Your task to perform on an android device: uninstall "Spotify: Music and Podcasts" Image 0: 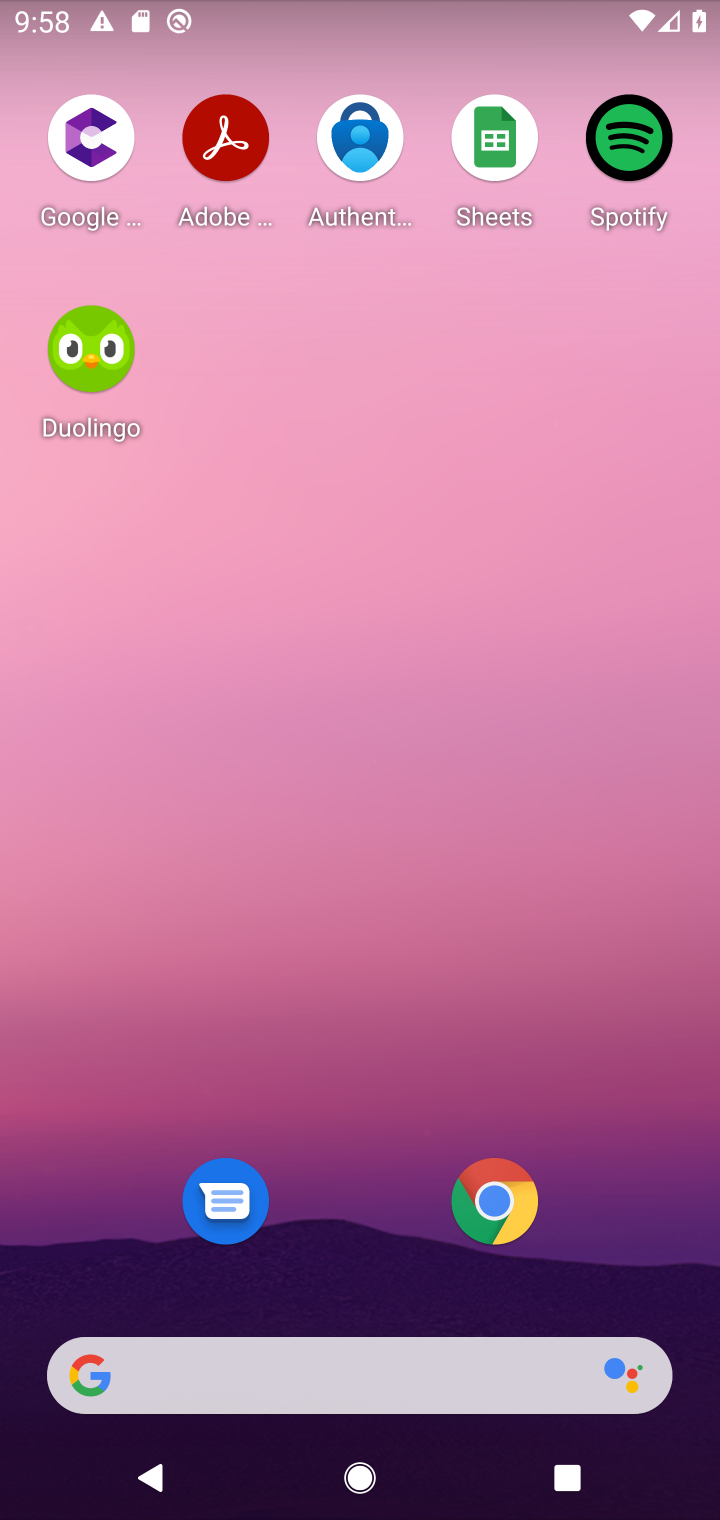
Step 0: drag from (364, 1226) to (312, 6)
Your task to perform on an android device: uninstall "Spotify: Music and Podcasts" Image 1: 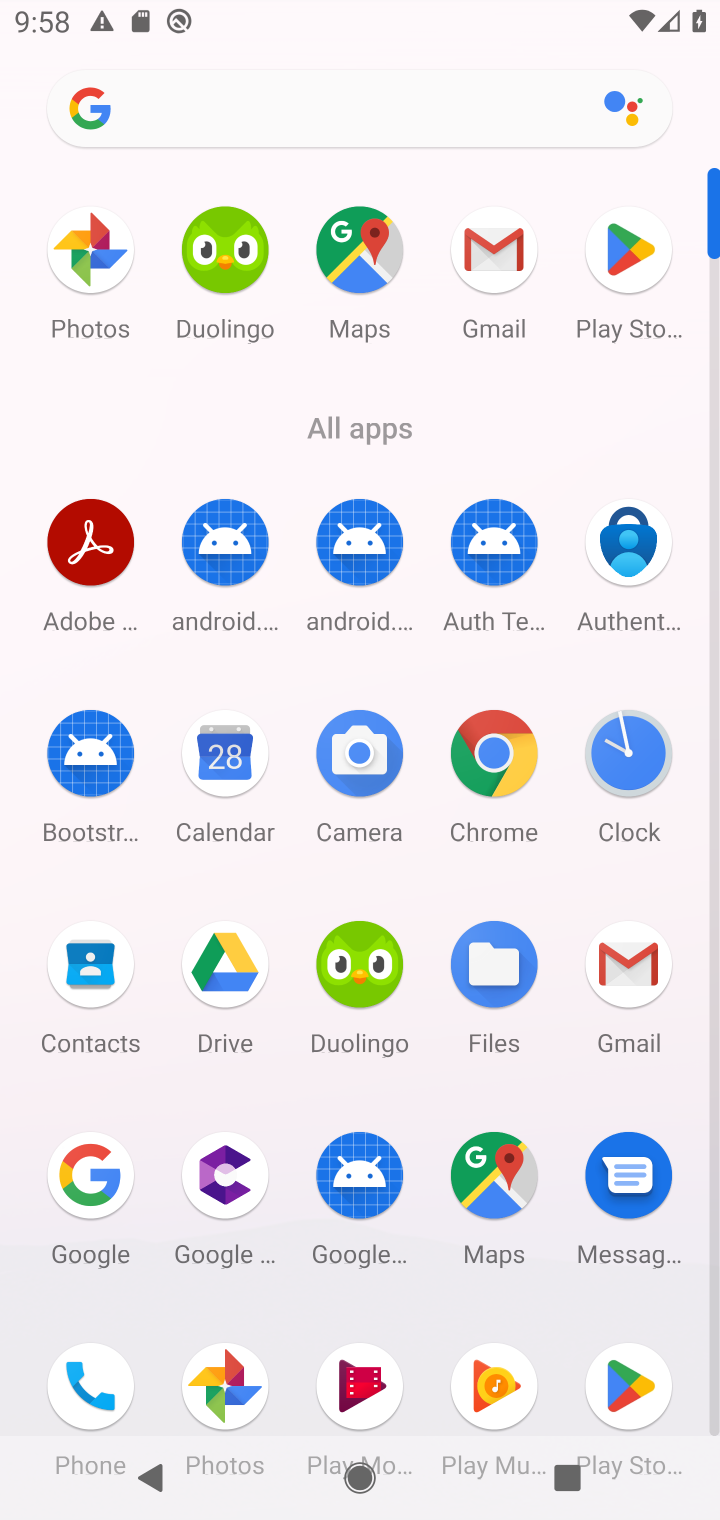
Step 1: click (621, 299)
Your task to perform on an android device: uninstall "Spotify: Music and Podcasts" Image 2: 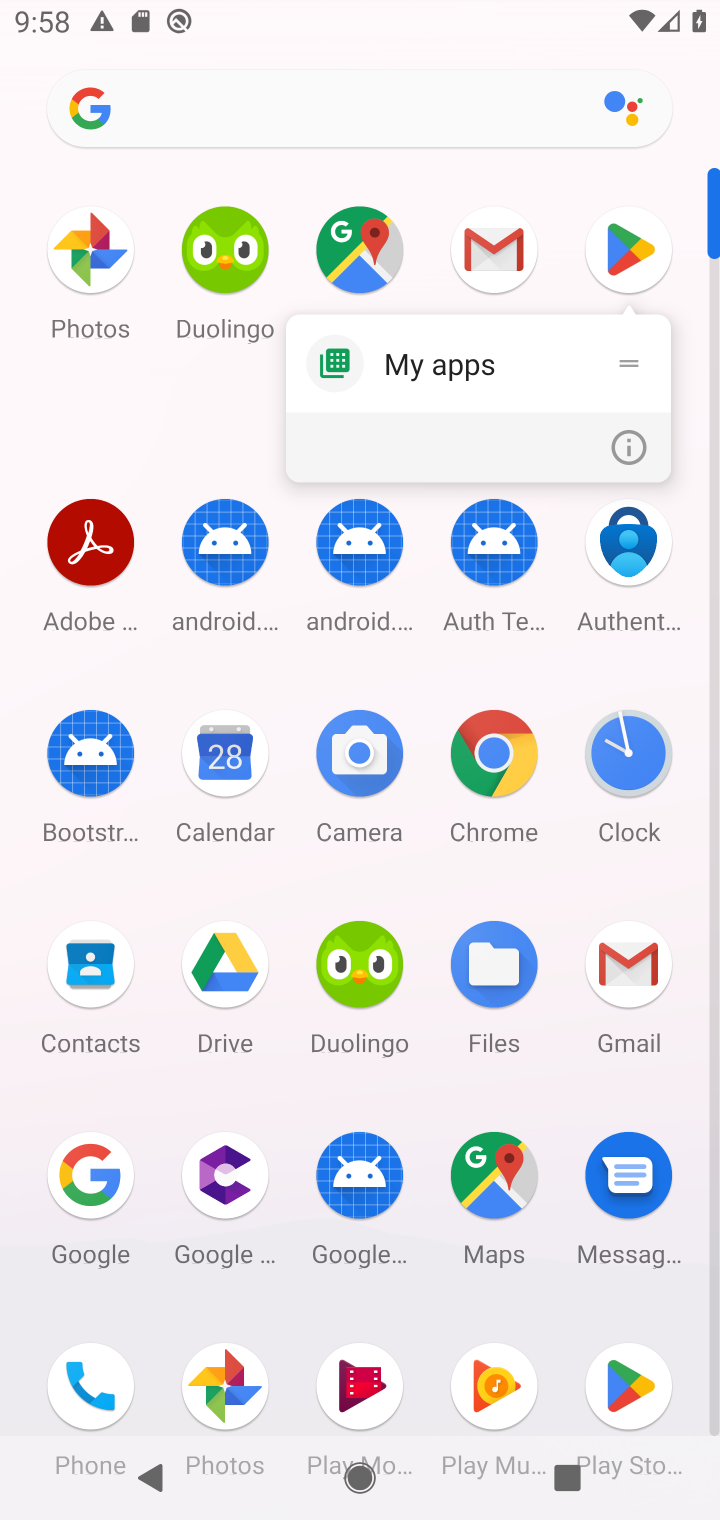
Step 2: click (649, 244)
Your task to perform on an android device: uninstall "Spotify: Music and Podcasts" Image 3: 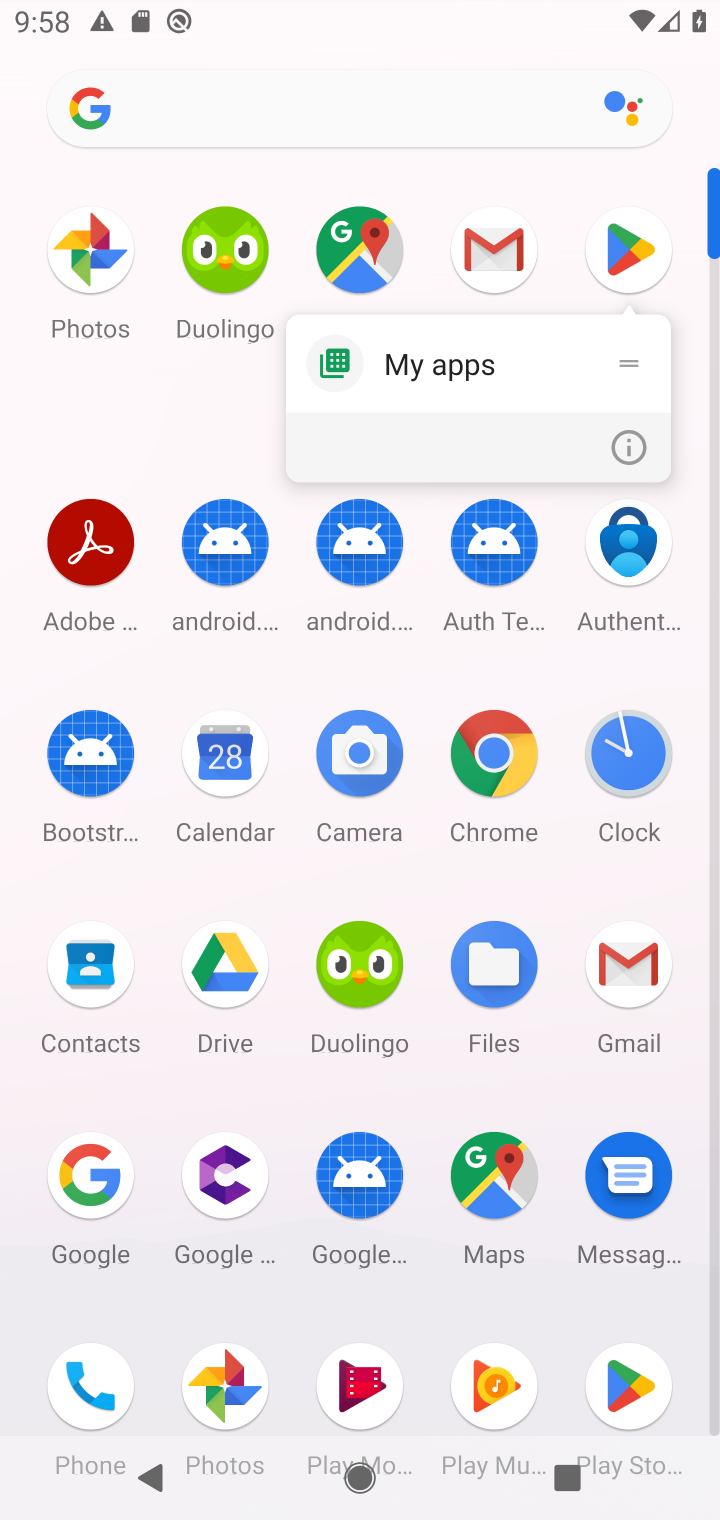
Step 3: click (649, 252)
Your task to perform on an android device: uninstall "Spotify: Music and Podcasts" Image 4: 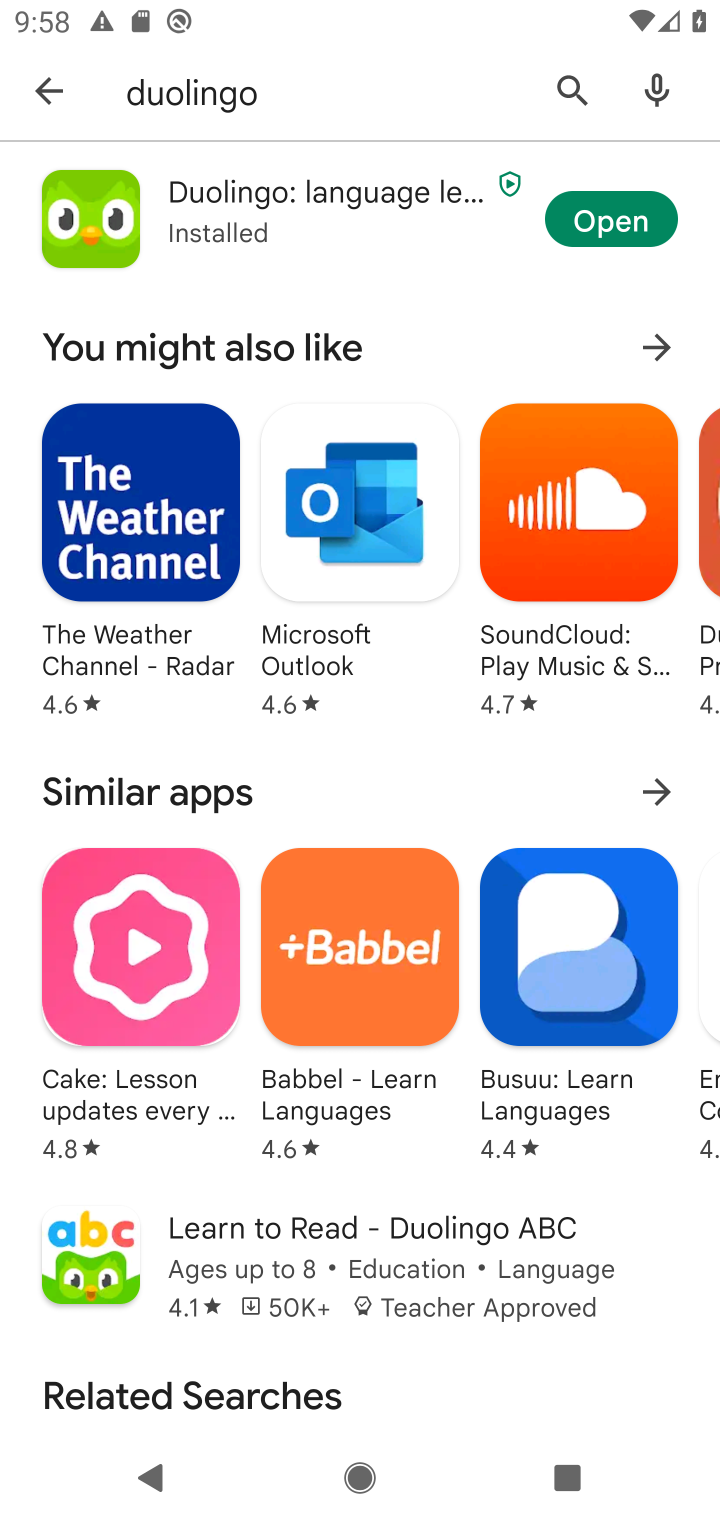
Step 4: click (273, 89)
Your task to perform on an android device: uninstall "Spotify: Music and Podcasts" Image 5: 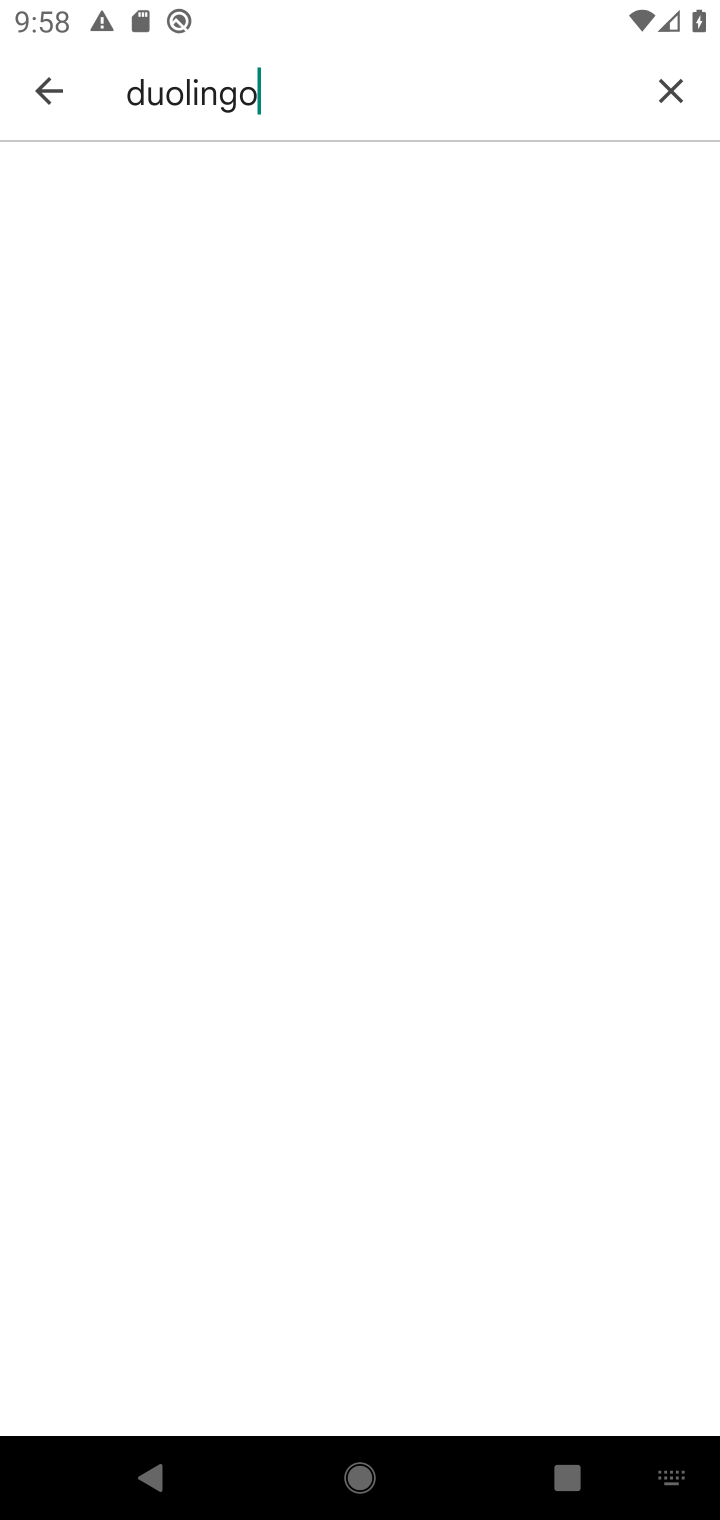
Step 5: click (657, 85)
Your task to perform on an android device: uninstall "Spotify: Music and Podcasts" Image 6: 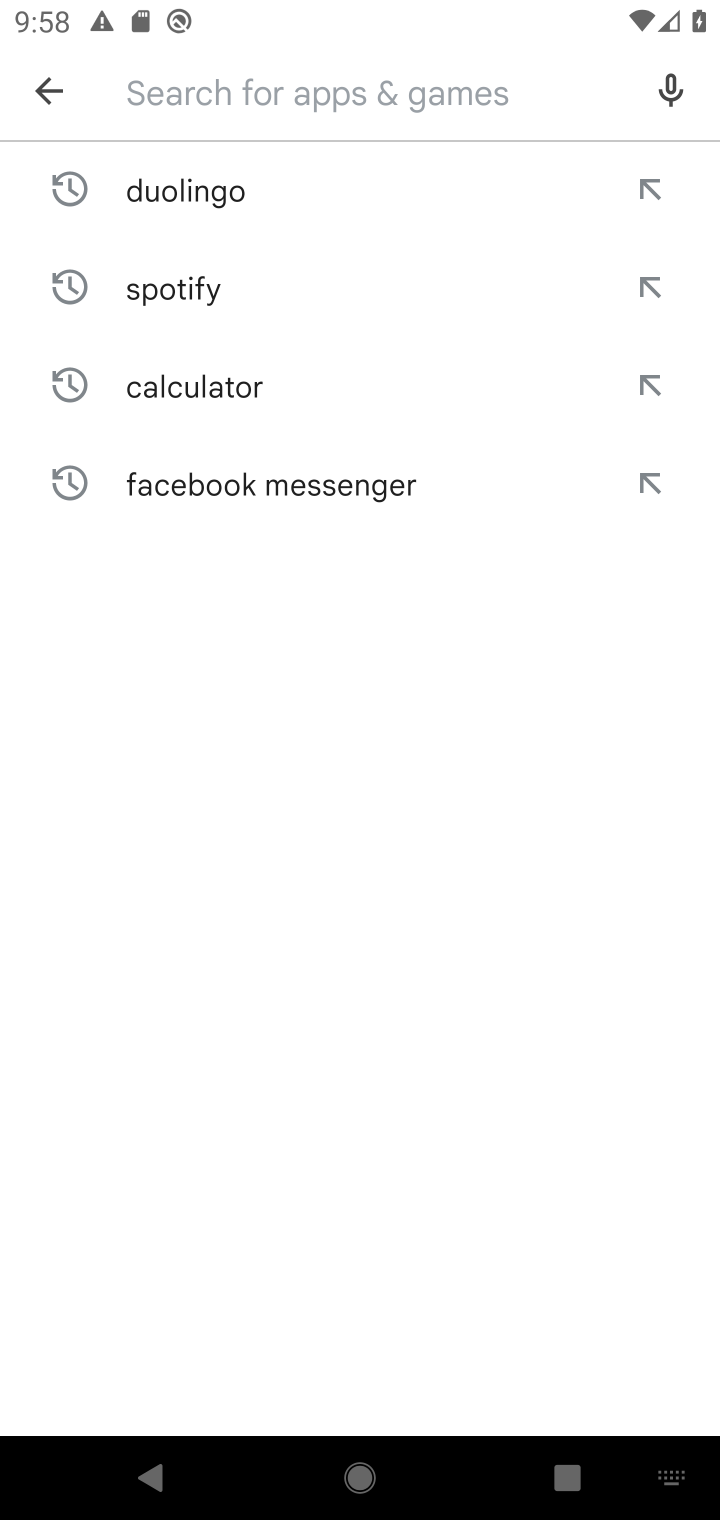
Step 6: type "spotify"
Your task to perform on an android device: uninstall "Spotify: Music and Podcasts" Image 7: 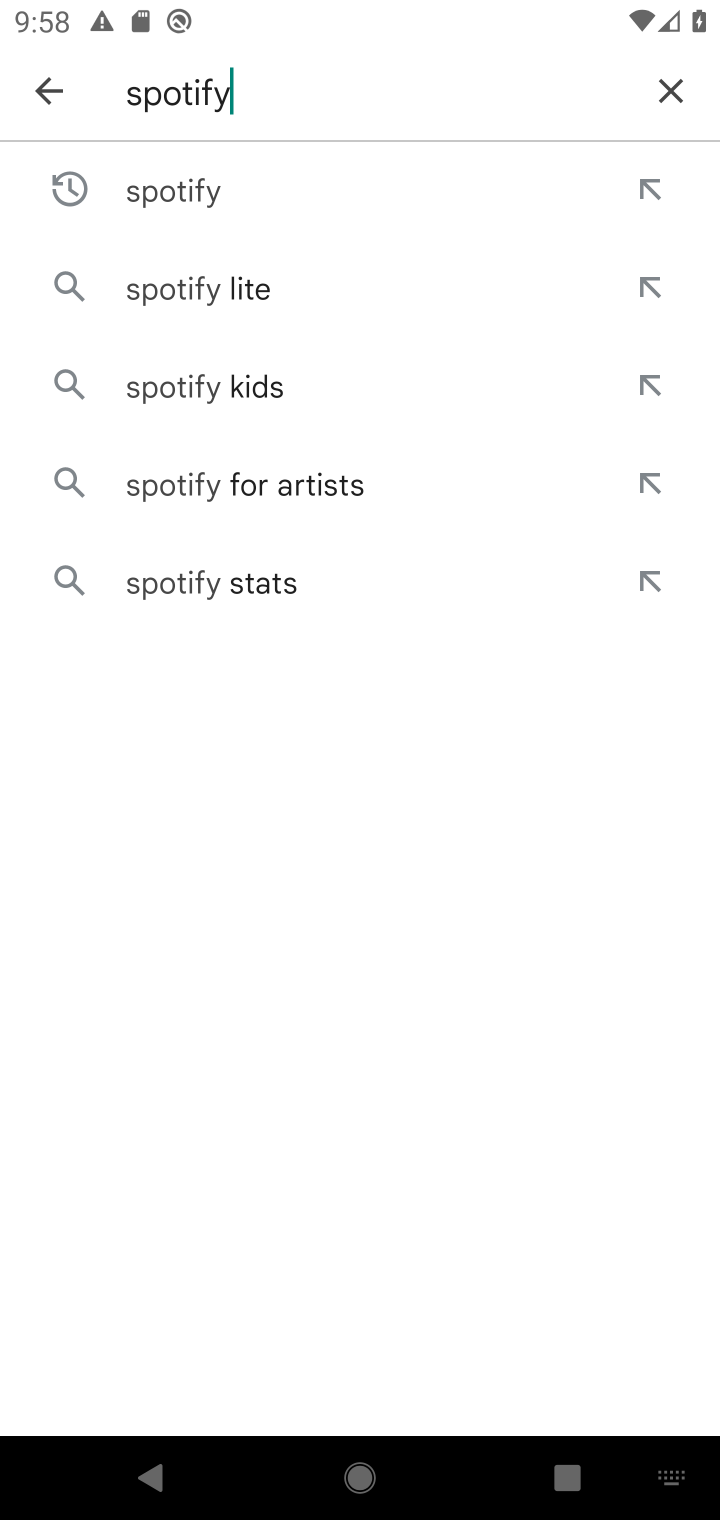
Step 7: click (189, 225)
Your task to perform on an android device: uninstall "Spotify: Music and Podcasts" Image 8: 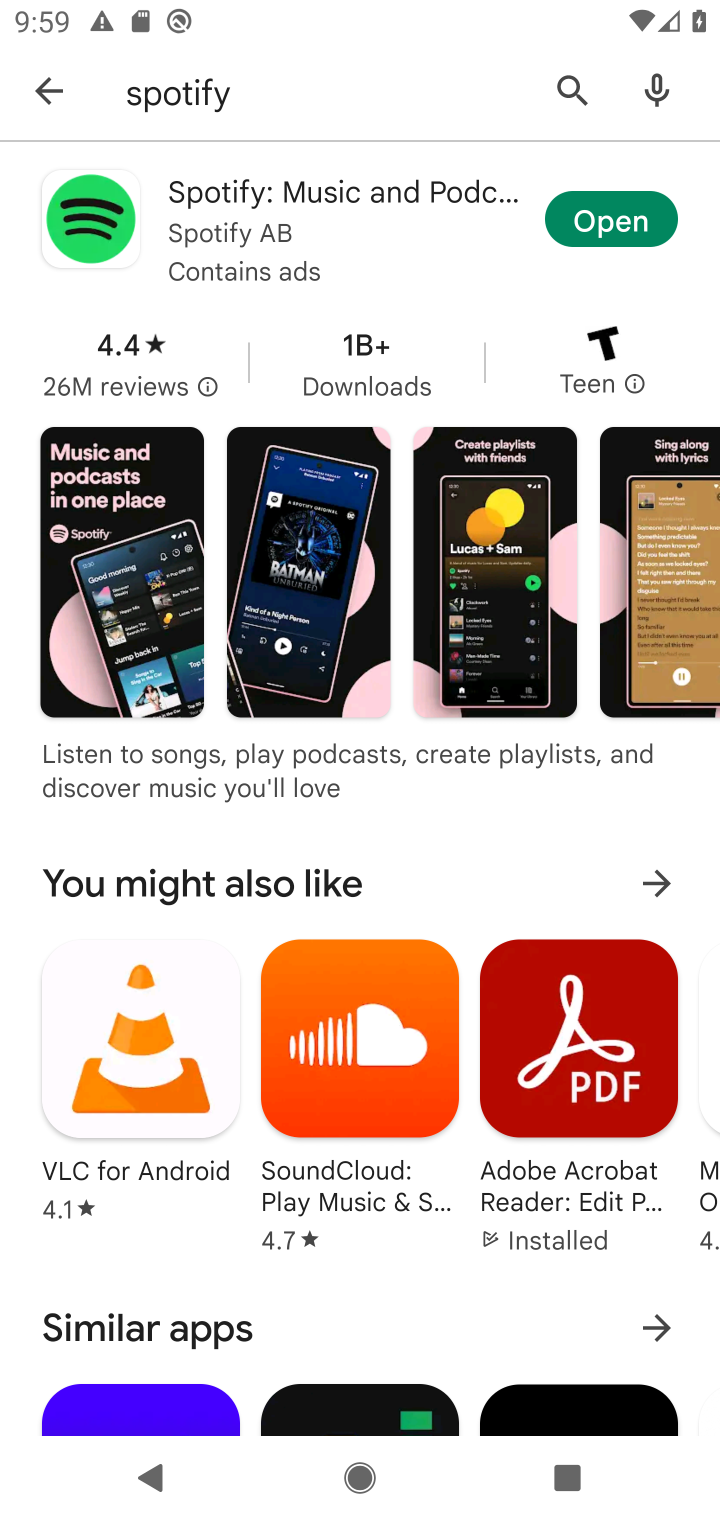
Step 8: click (324, 191)
Your task to perform on an android device: uninstall "Spotify: Music and Podcasts" Image 9: 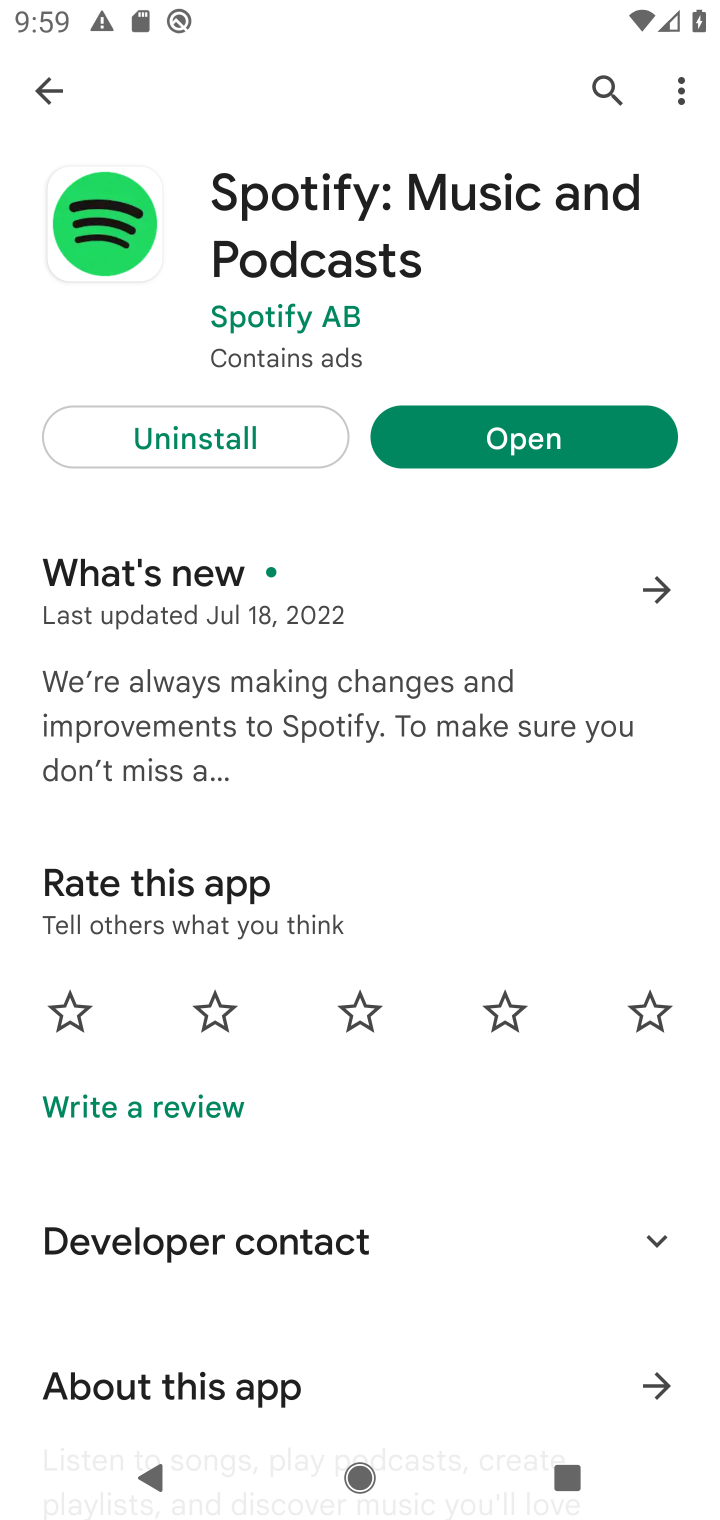
Step 9: click (184, 439)
Your task to perform on an android device: uninstall "Spotify: Music and Podcasts" Image 10: 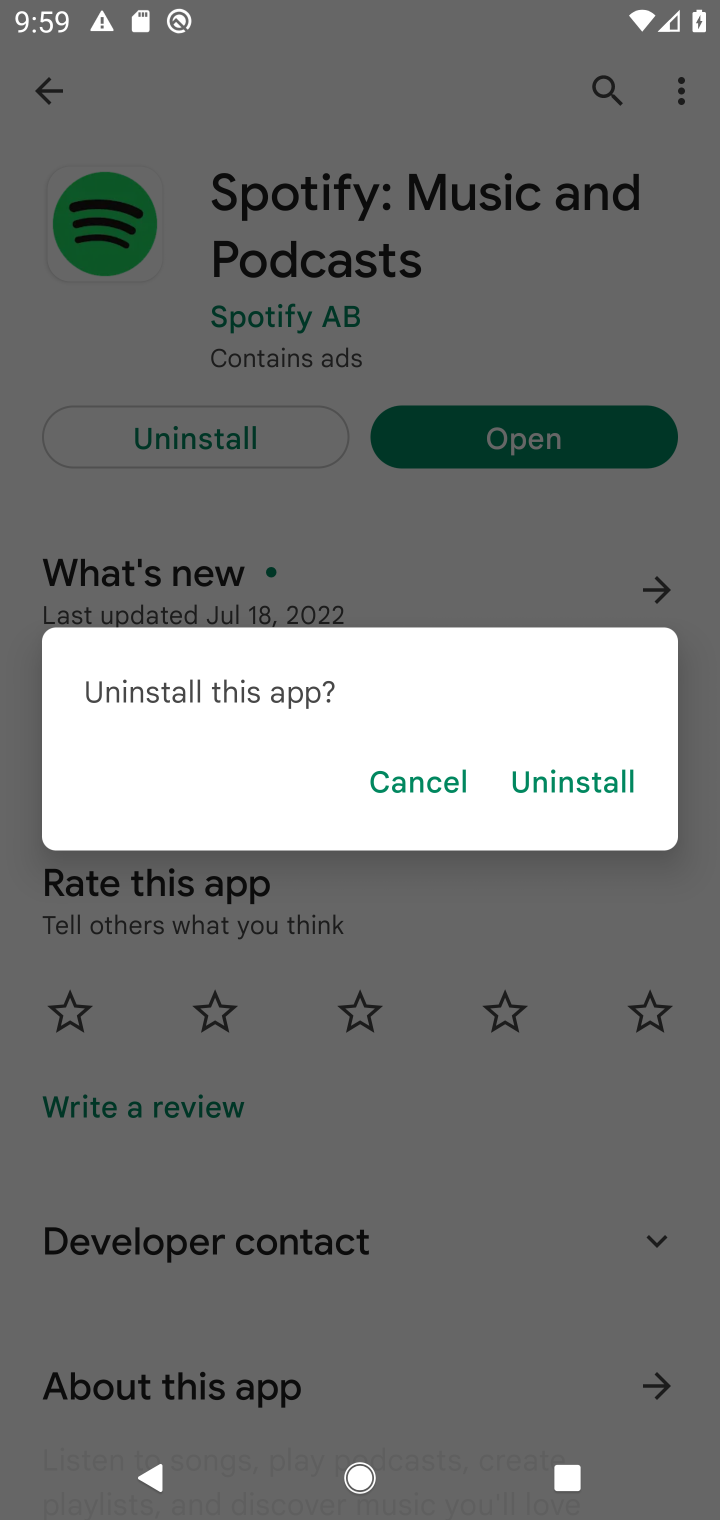
Step 10: click (570, 786)
Your task to perform on an android device: uninstall "Spotify: Music and Podcasts" Image 11: 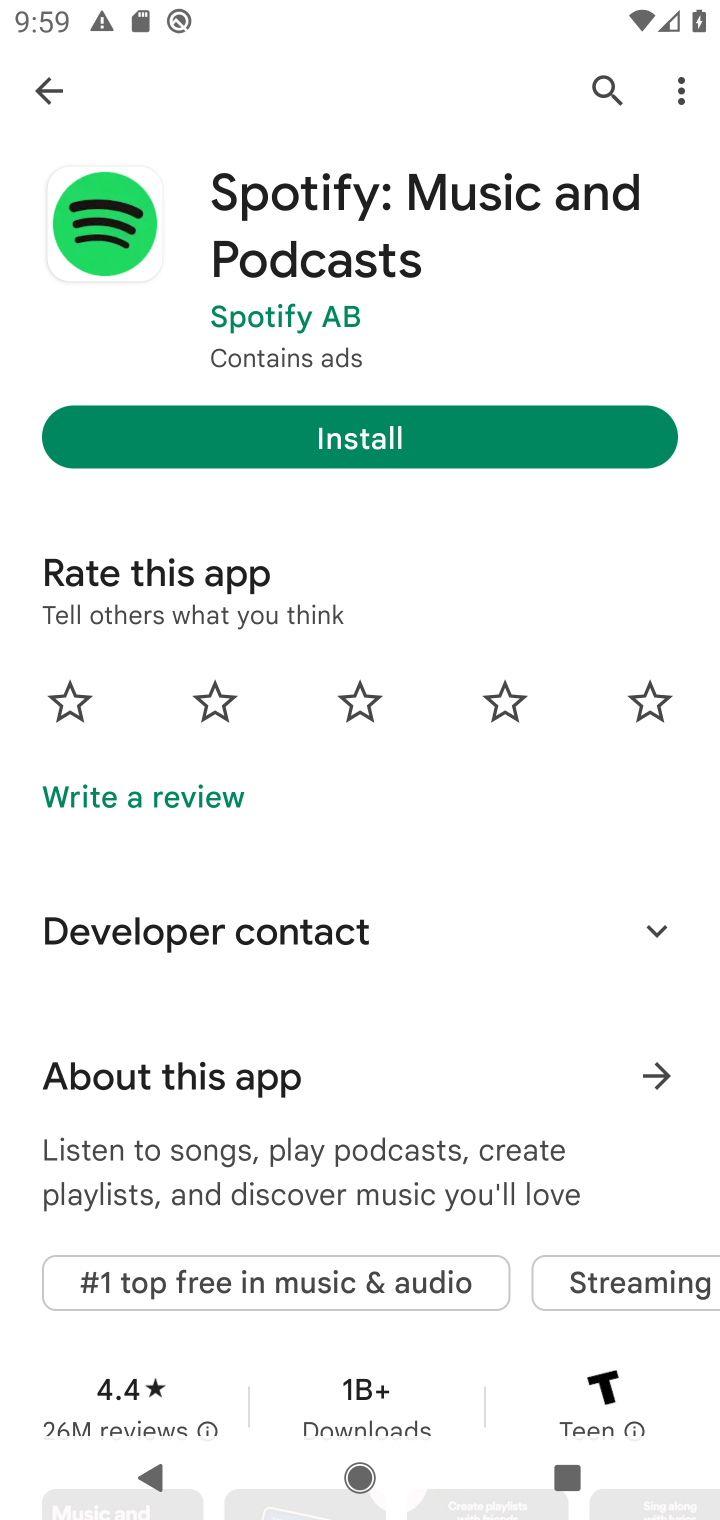
Step 11: task complete